Your task to perform on an android device: turn off notifications settings in the gmail app Image 0: 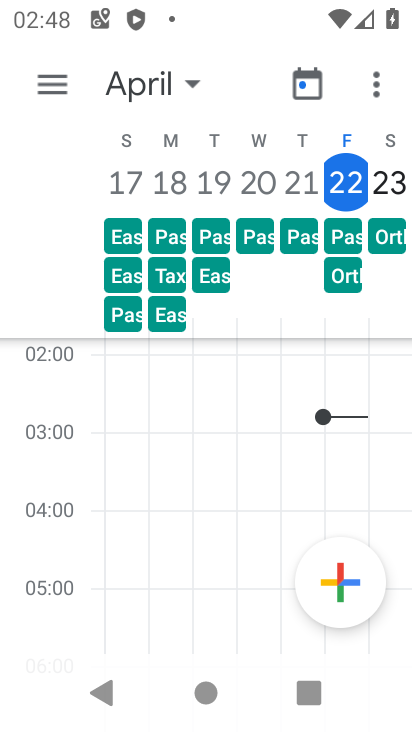
Step 0: press home button
Your task to perform on an android device: turn off notifications settings in the gmail app Image 1: 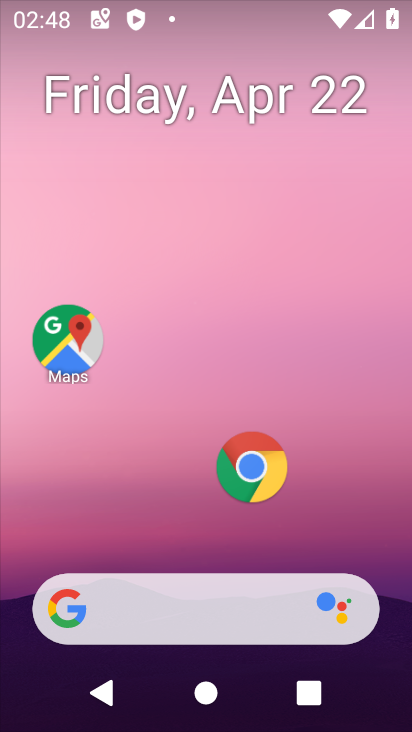
Step 1: drag from (188, 549) to (191, 105)
Your task to perform on an android device: turn off notifications settings in the gmail app Image 2: 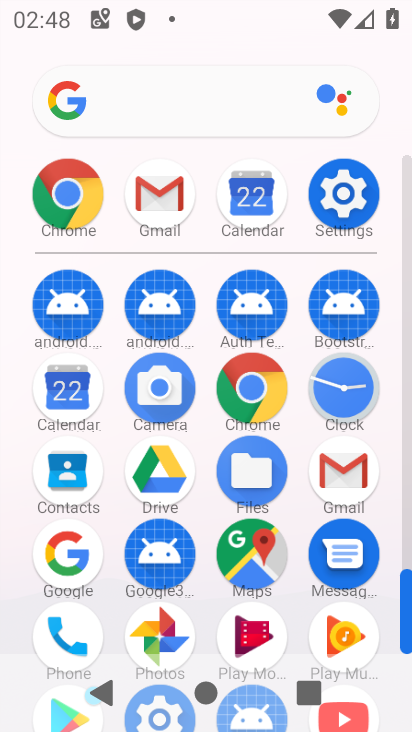
Step 2: click (352, 457)
Your task to perform on an android device: turn off notifications settings in the gmail app Image 3: 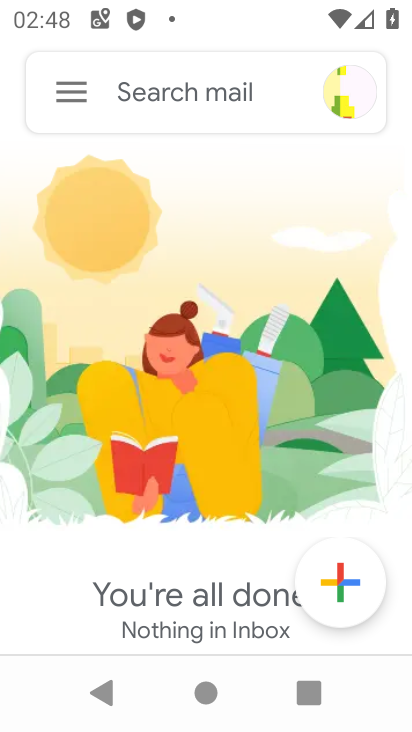
Step 3: click (78, 87)
Your task to perform on an android device: turn off notifications settings in the gmail app Image 4: 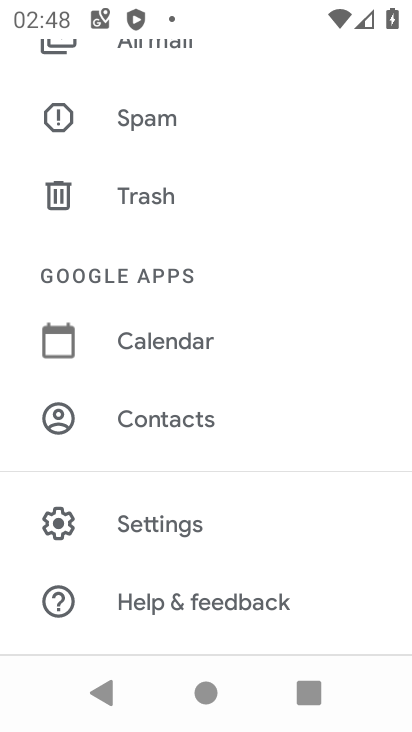
Step 4: click (163, 537)
Your task to perform on an android device: turn off notifications settings in the gmail app Image 5: 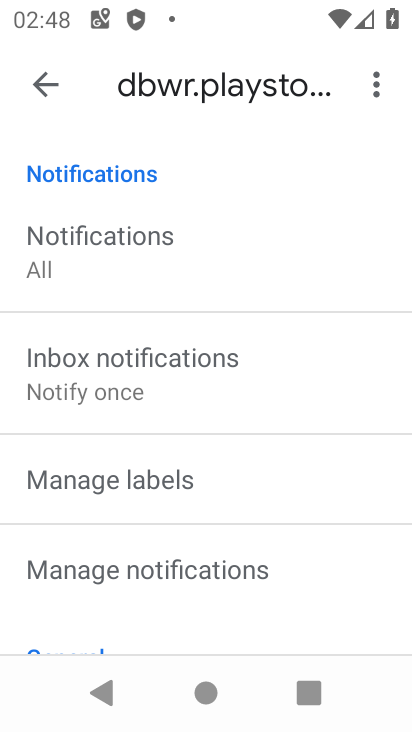
Step 5: click (122, 252)
Your task to perform on an android device: turn off notifications settings in the gmail app Image 6: 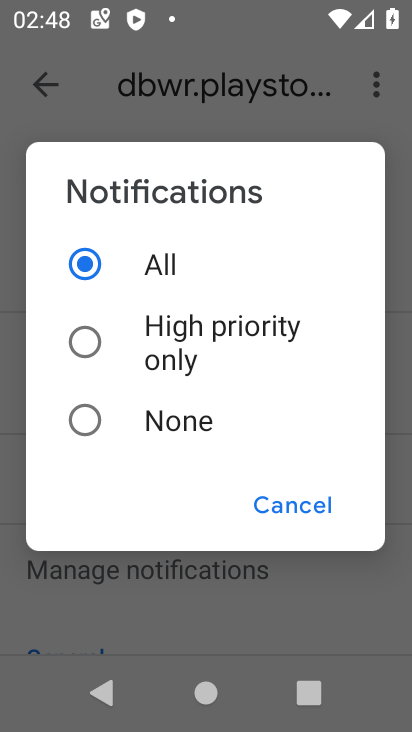
Step 6: click (142, 434)
Your task to perform on an android device: turn off notifications settings in the gmail app Image 7: 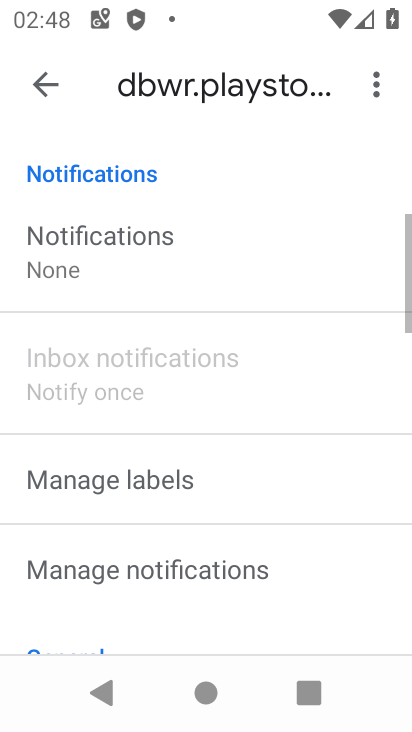
Step 7: task complete